Your task to perform on an android device: Go to Amazon Image 0: 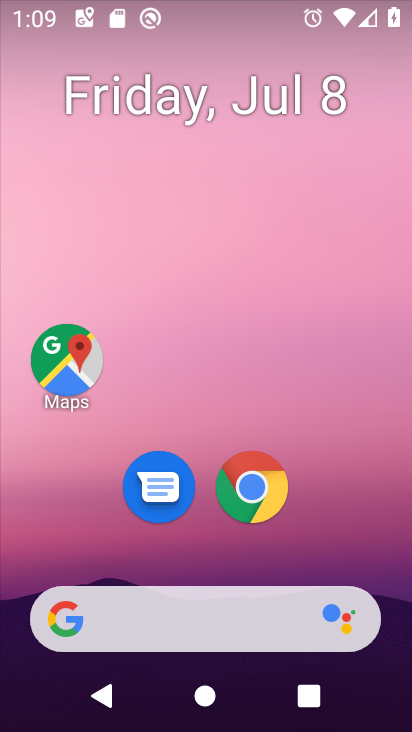
Step 0: drag from (384, 566) to (388, 180)
Your task to perform on an android device: Go to Amazon Image 1: 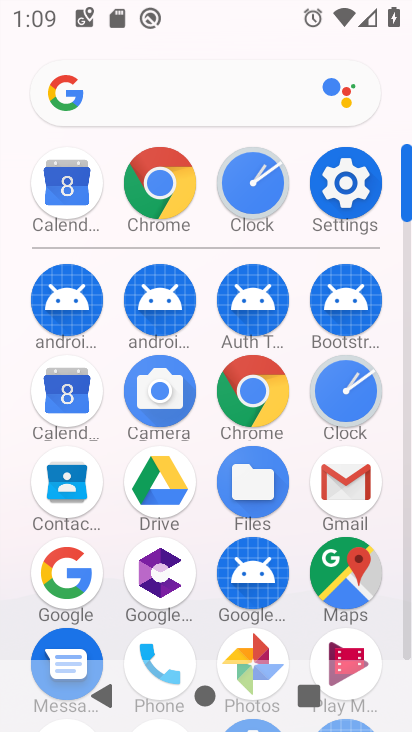
Step 1: click (260, 385)
Your task to perform on an android device: Go to Amazon Image 2: 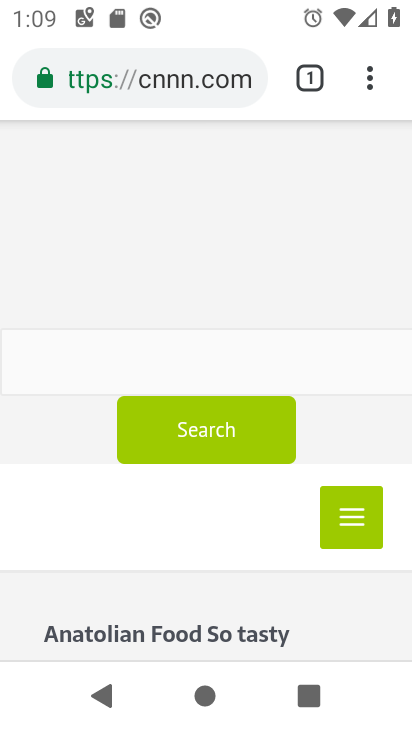
Step 2: click (246, 90)
Your task to perform on an android device: Go to Amazon Image 3: 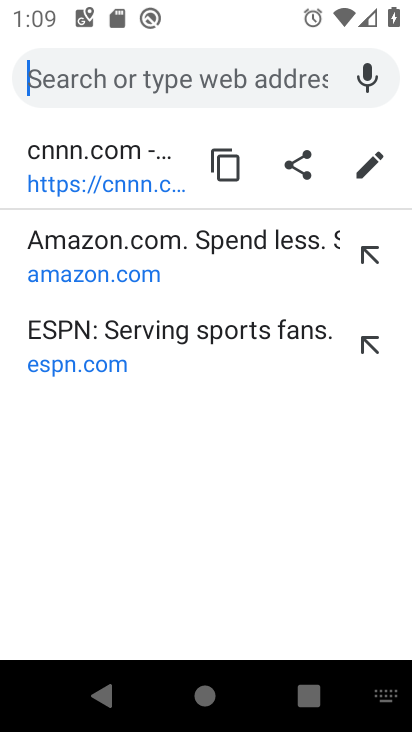
Step 3: type "amazon"
Your task to perform on an android device: Go to Amazon Image 4: 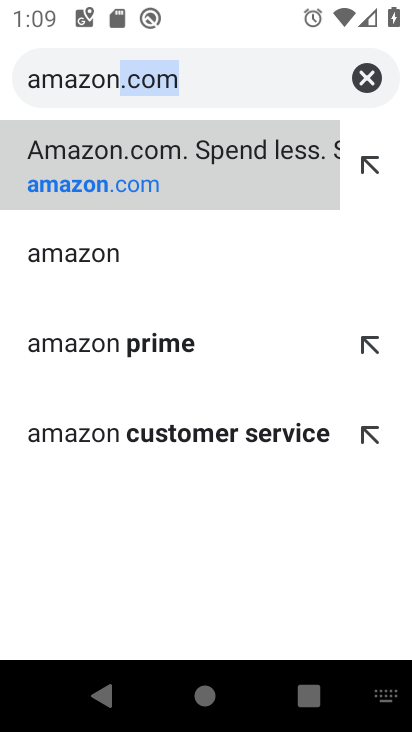
Step 4: click (203, 148)
Your task to perform on an android device: Go to Amazon Image 5: 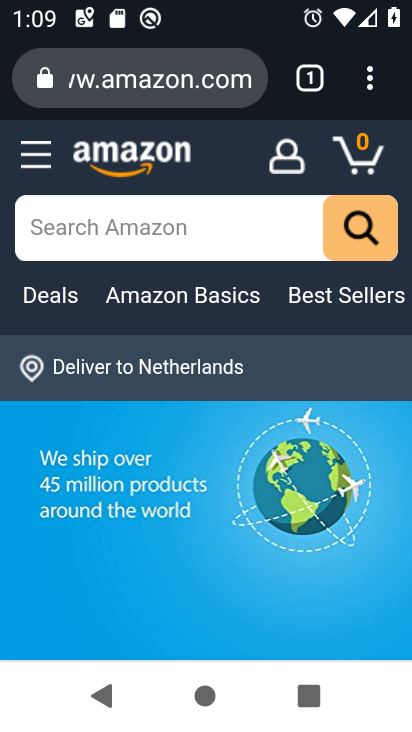
Step 5: task complete